Your task to perform on an android device: refresh tabs in the chrome app Image 0: 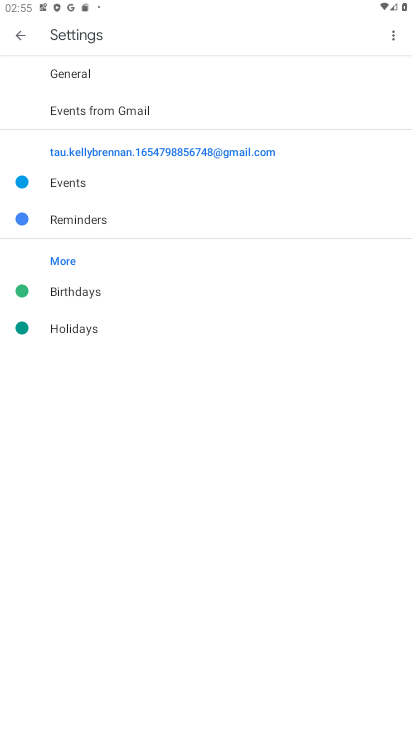
Step 0: press home button
Your task to perform on an android device: refresh tabs in the chrome app Image 1: 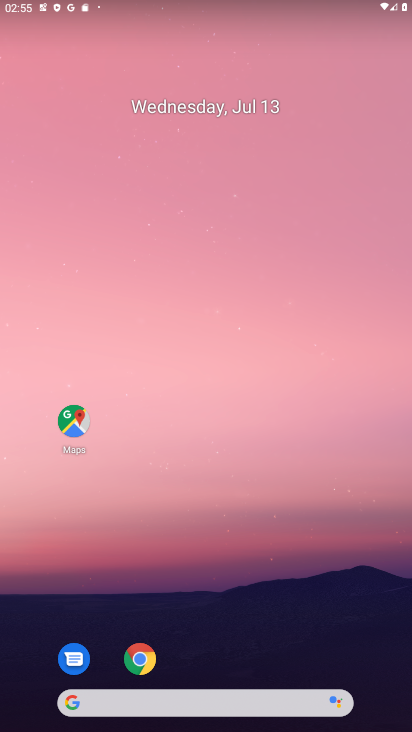
Step 1: drag from (294, 648) to (310, 138)
Your task to perform on an android device: refresh tabs in the chrome app Image 2: 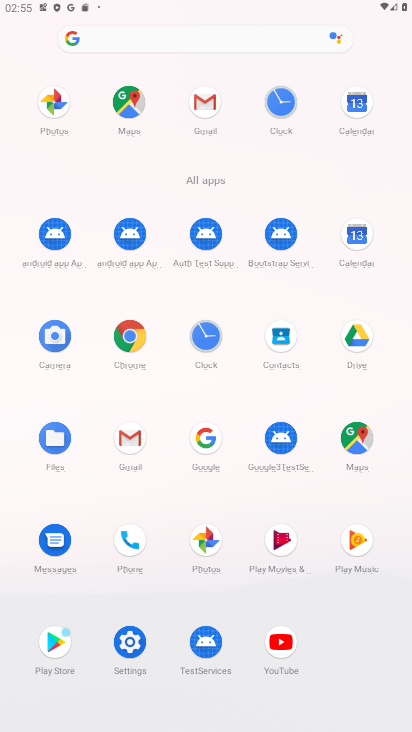
Step 2: click (124, 361)
Your task to perform on an android device: refresh tabs in the chrome app Image 3: 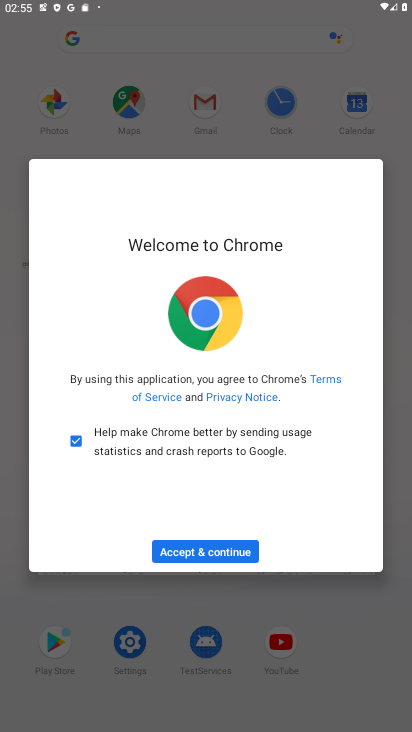
Step 3: click (235, 537)
Your task to perform on an android device: refresh tabs in the chrome app Image 4: 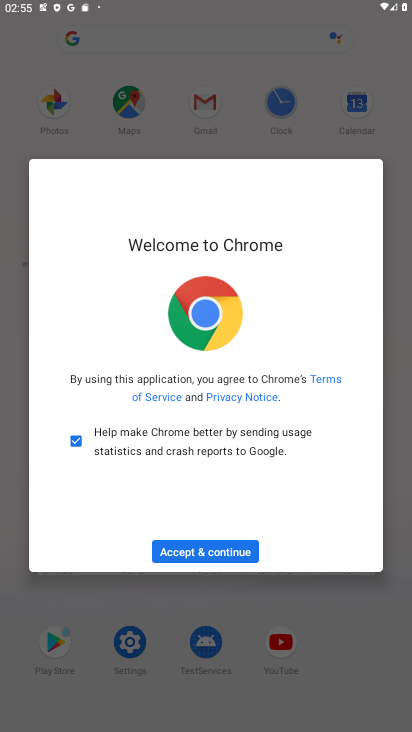
Step 4: click (248, 549)
Your task to perform on an android device: refresh tabs in the chrome app Image 5: 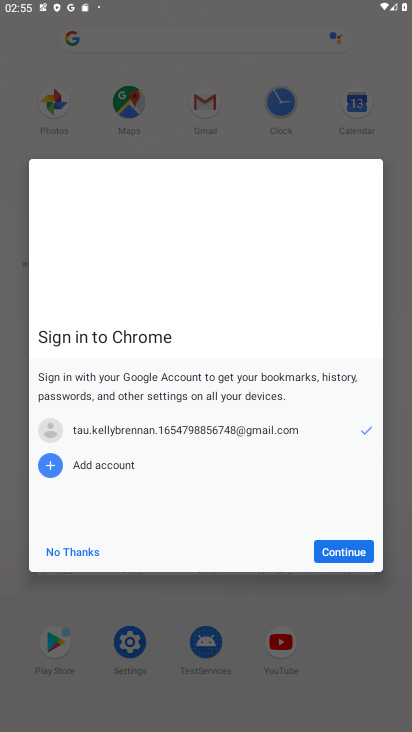
Step 5: click (348, 562)
Your task to perform on an android device: refresh tabs in the chrome app Image 6: 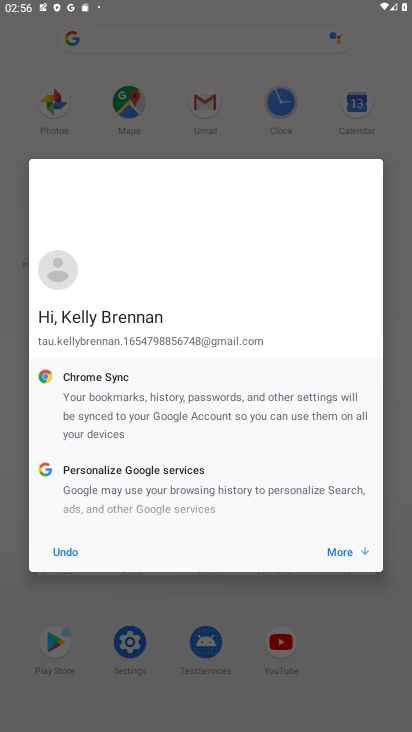
Step 6: click (323, 553)
Your task to perform on an android device: refresh tabs in the chrome app Image 7: 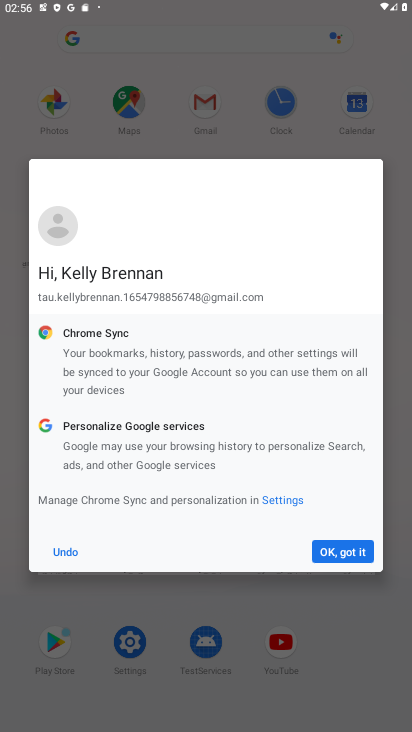
Step 7: click (326, 557)
Your task to perform on an android device: refresh tabs in the chrome app Image 8: 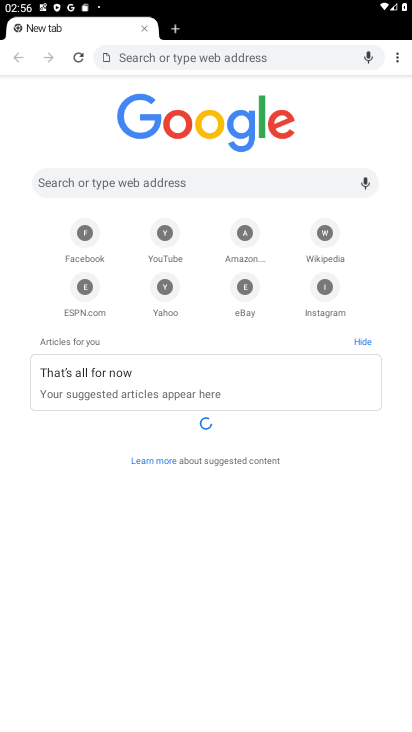
Step 8: click (75, 57)
Your task to perform on an android device: refresh tabs in the chrome app Image 9: 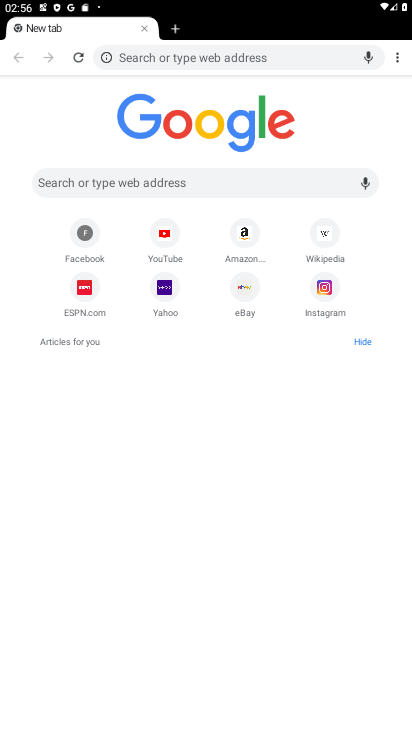
Step 9: task complete